Your task to perform on an android device: Go to calendar. Show me events next week Image 0: 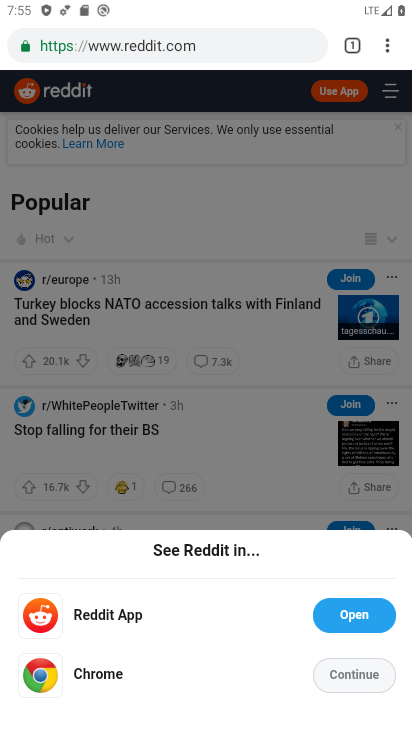
Step 0: press home button
Your task to perform on an android device: Go to calendar. Show me events next week Image 1: 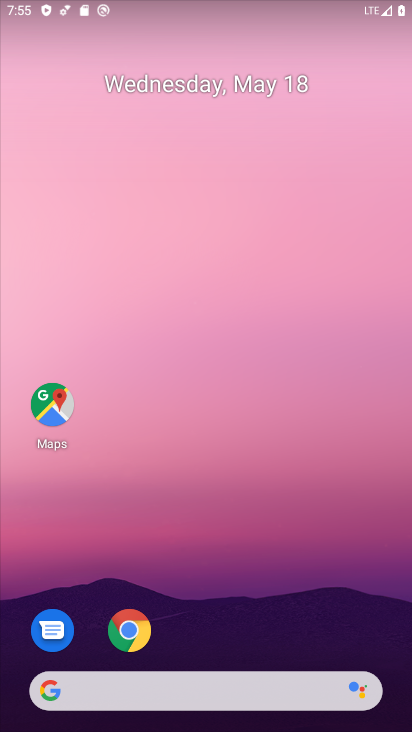
Step 1: drag from (177, 686) to (308, 172)
Your task to perform on an android device: Go to calendar. Show me events next week Image 2: 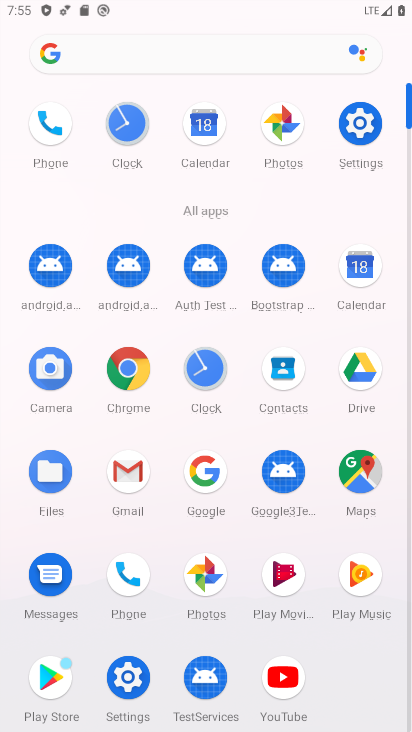
Step 2: click (358, 267)
Your task to perform on an android device: Go to calendar. Show me events next week Image 3: 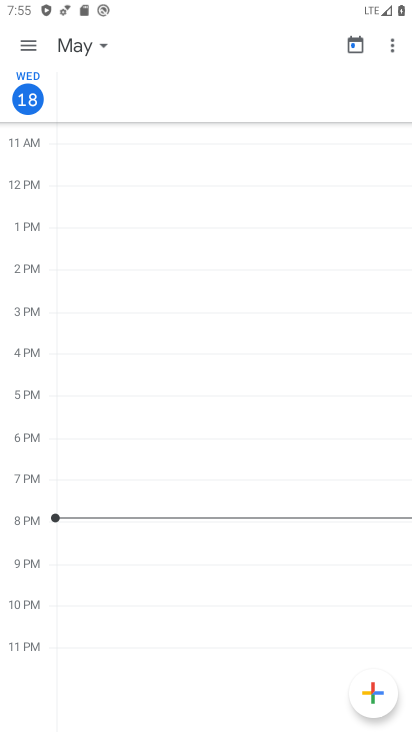
Step 3: click (69, 43)
Your task to perform on an android device: Go to calendar. Show me events next week Image 4: 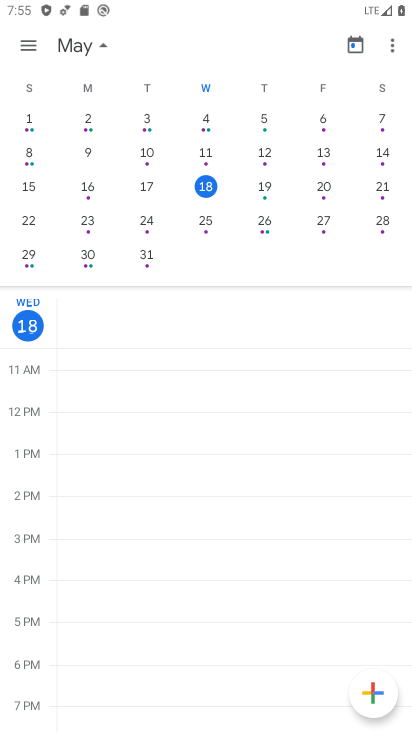
Step 4: click (30, 216)
Your task to perform on an android device: Go to calendar. Show me events next week Image 5: 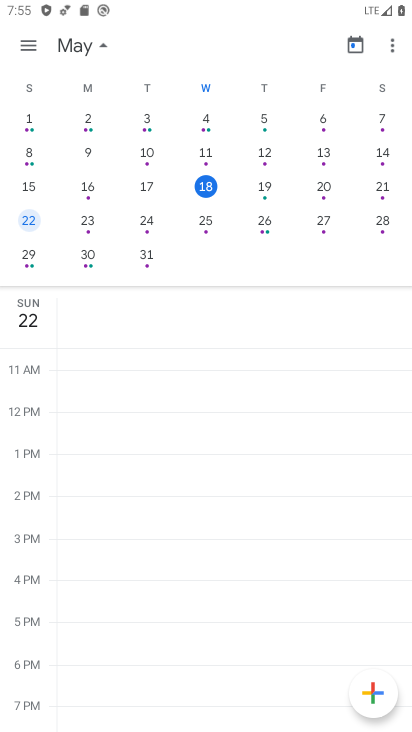
Step 5: click (26, 34)
Your task to perform on an android device: Go to calendar. Show me events next week Image 6: 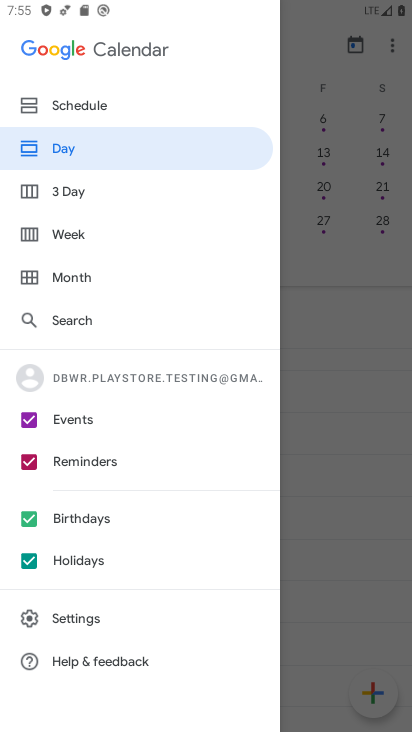
Step 6: click (73, 236)
Your task to perform on an android device: Go to calendar. Show me events next week Image 7: 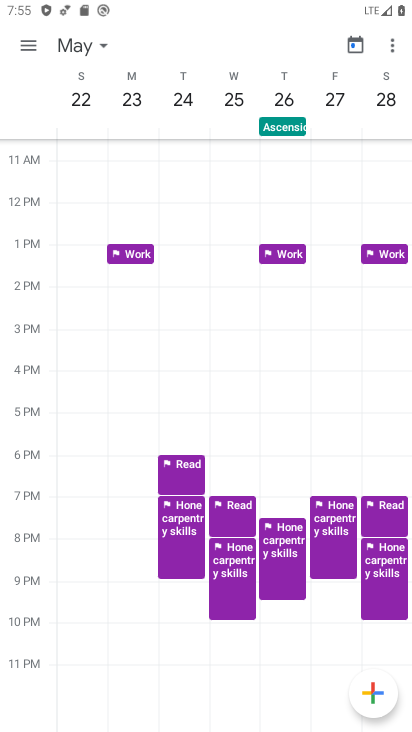
Step 7: click (36, 38)
Your task to perform on an android device: Go to calendar. Show me events next week Image 8: 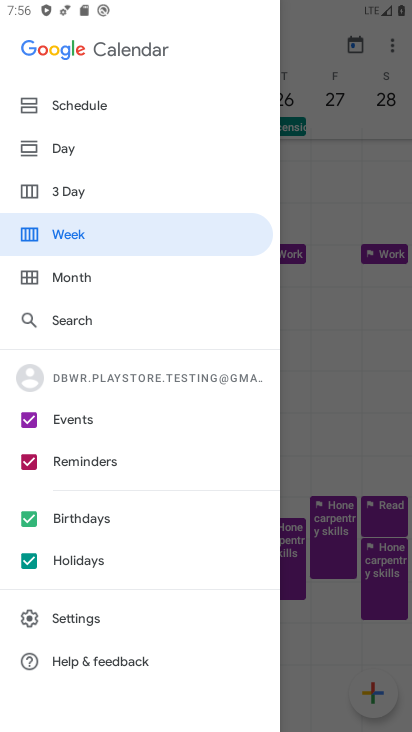
Step 8: click (88, 100)
Your task to perform on an android device: Go to calendar. Show me events next week Image 9: 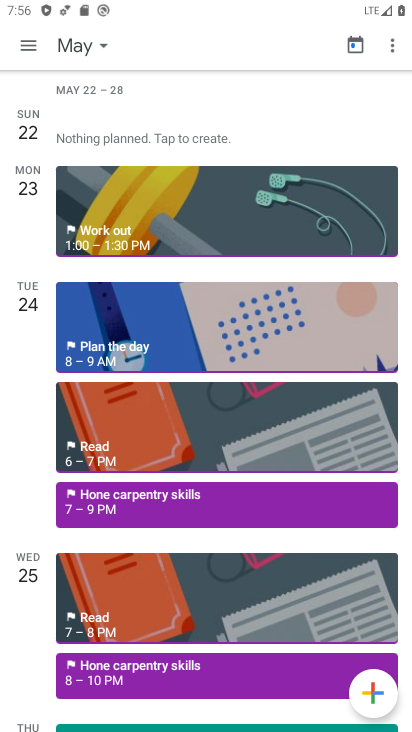
Step 9: click (168, 500)
Your task to perform on an android device: Go to calendar. Show me events next week Image 10: 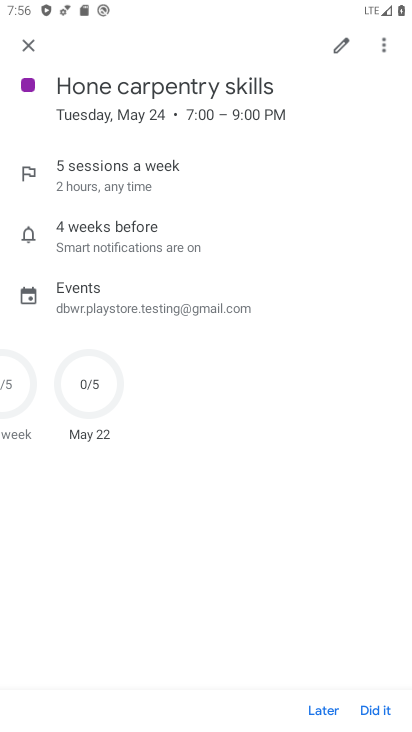
Step 10: task complete